Your task to perform on an android device: Open my contact list Image 0: 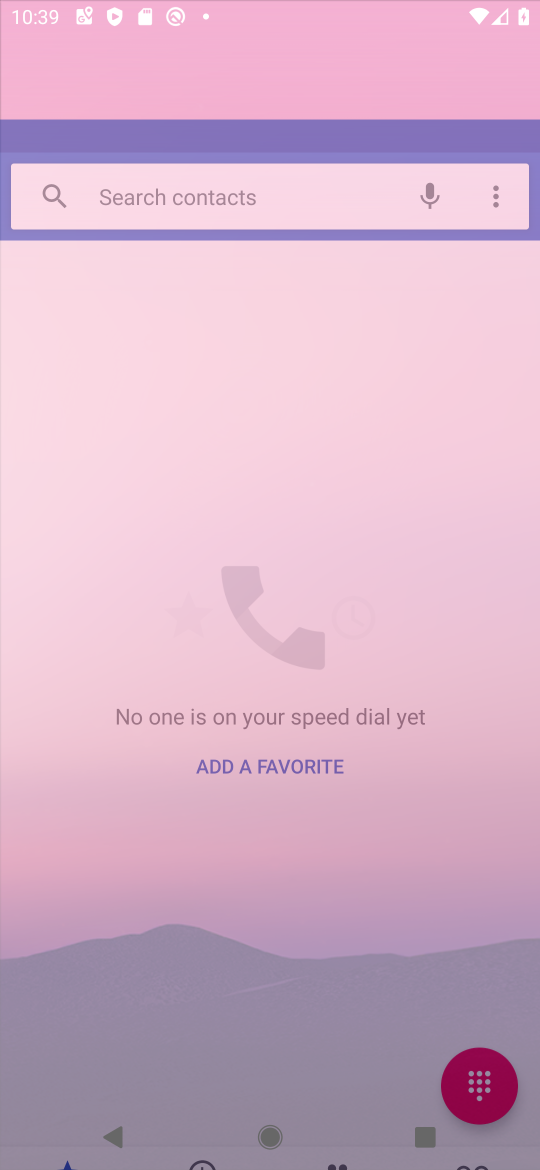
Step 0: press home button
Your task to perform on an android device: Open my contact list Image 1: 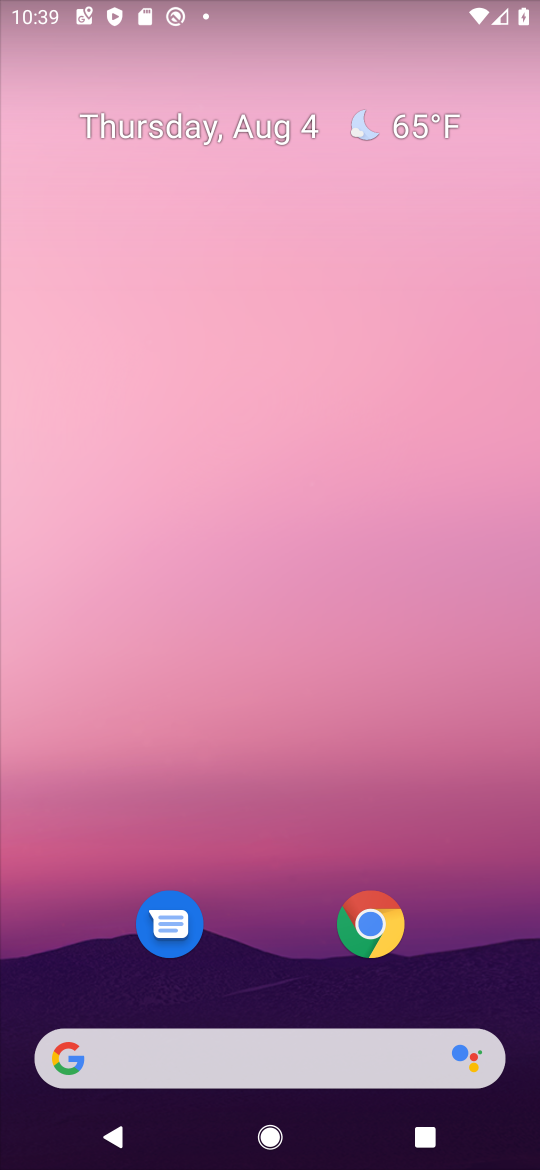
Step 1: drag from (271, 813) to (341, 349)
Your task to perform on an android device: Open my contact list Image 2: 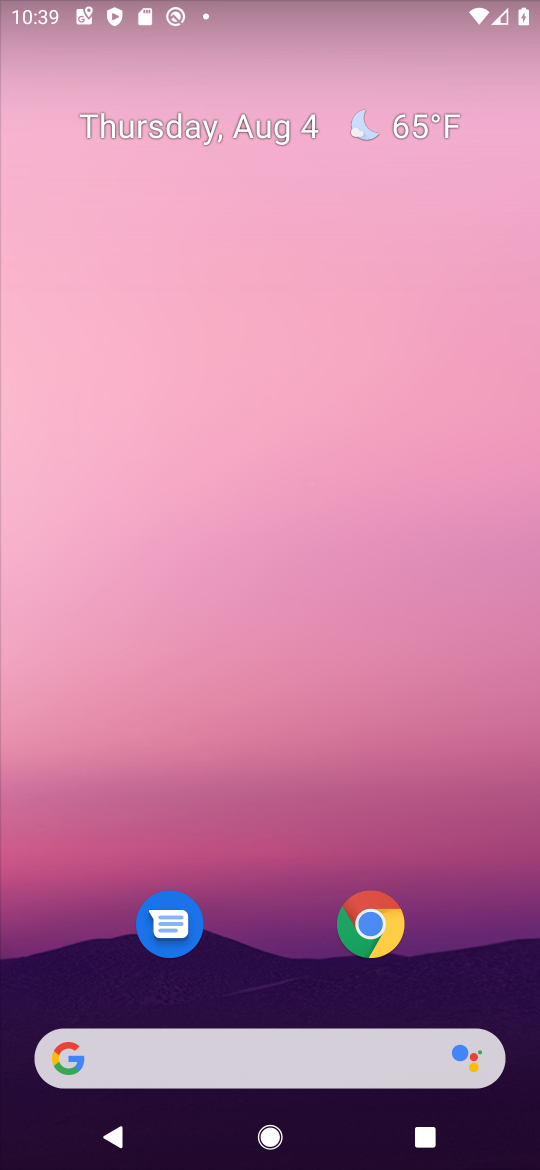
Step 2: drag from (270, 742) to (296, 316)
Your task to perform on an android device: Open my contact list Image 3: 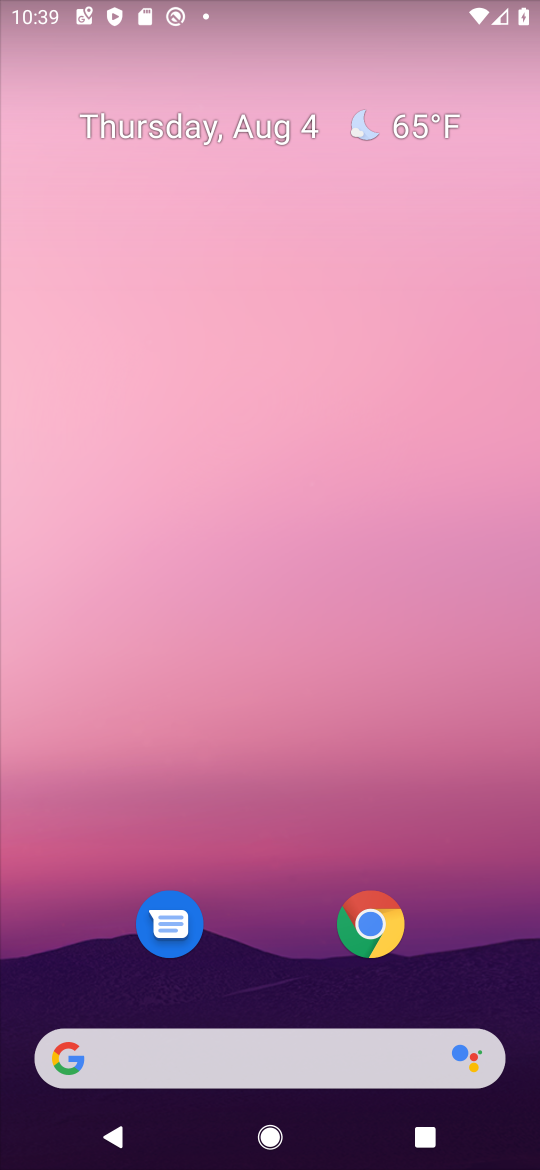
Step 3: drag from (261, 811) to (290, 376)
Your task to perform on an android device: Open my contact list Image 4: 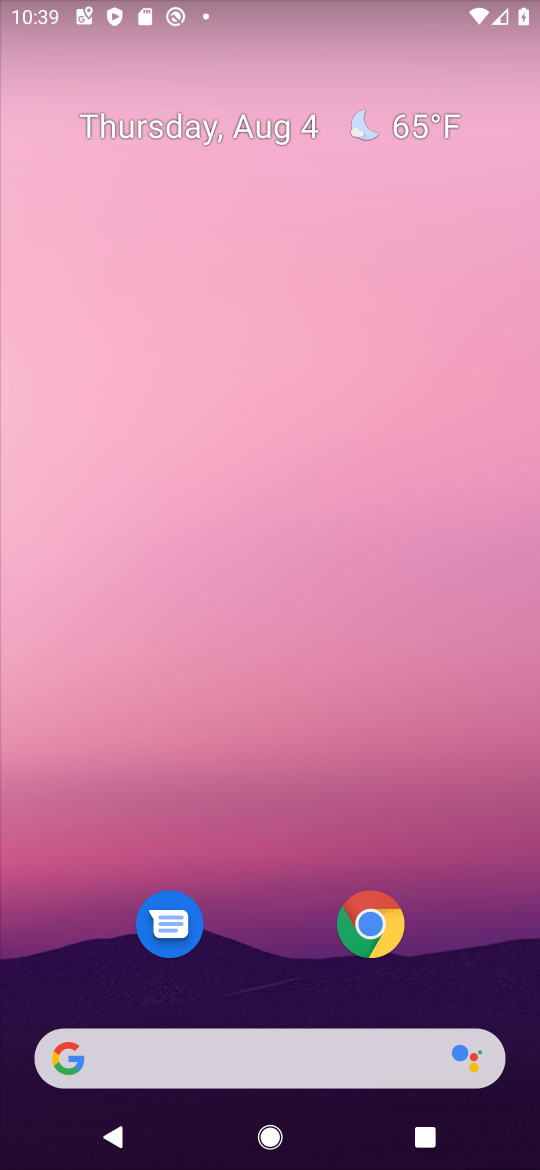
Step 4: drag from (277, 907) to (299, 221)
Your task to perform on an android device: Open my contact list Image 5: 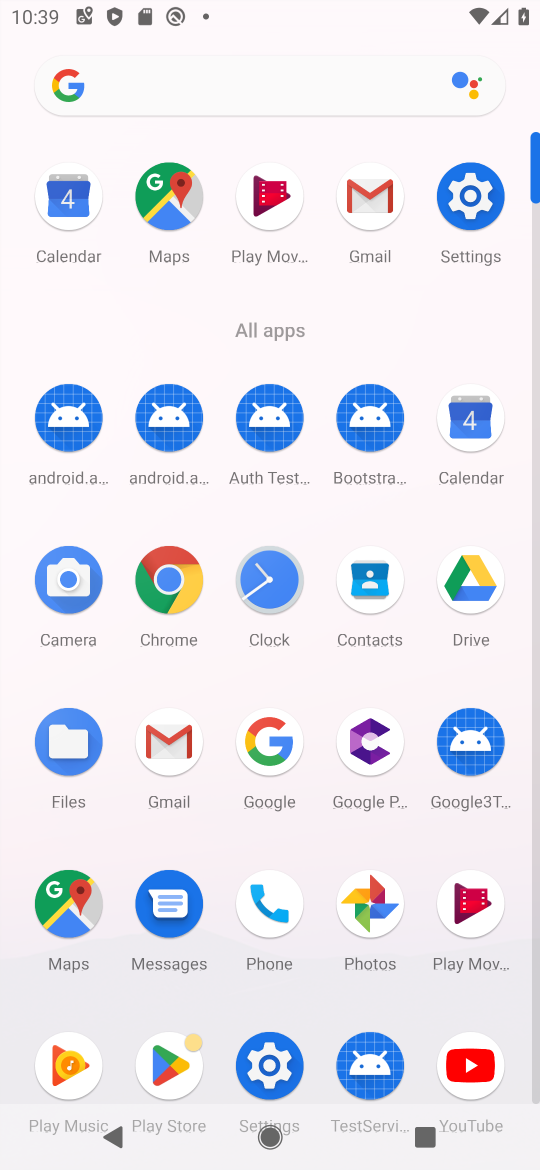
Step 5: click (378, 585)
Your task to perform on an android device: Open my contact list Image 6: 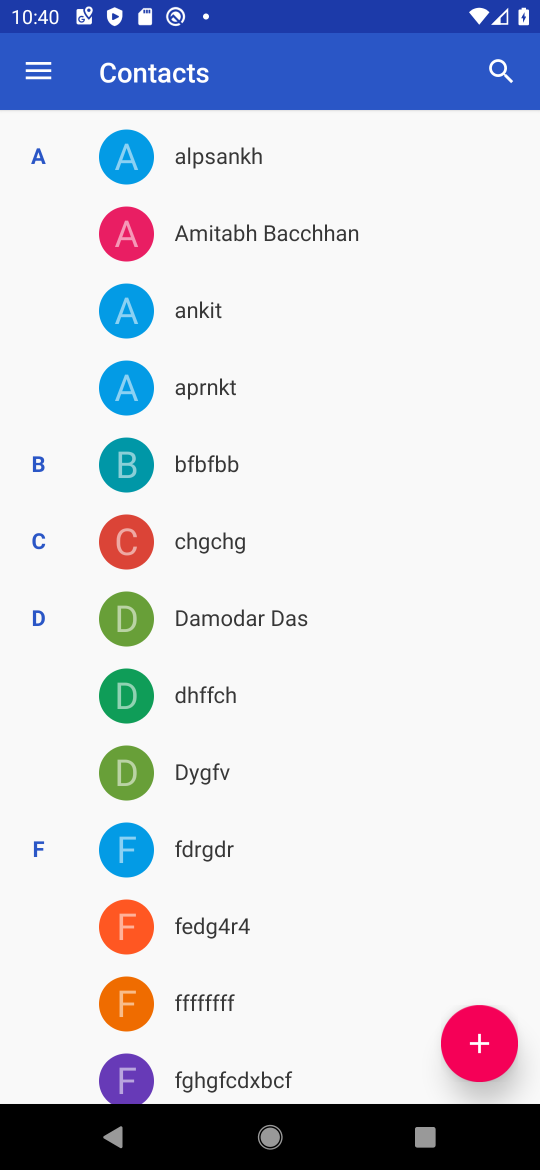
Step 6: task complete